Your task to perform on an android device: open app "Microsoft Outlook" (install if not already installed) Image 0: 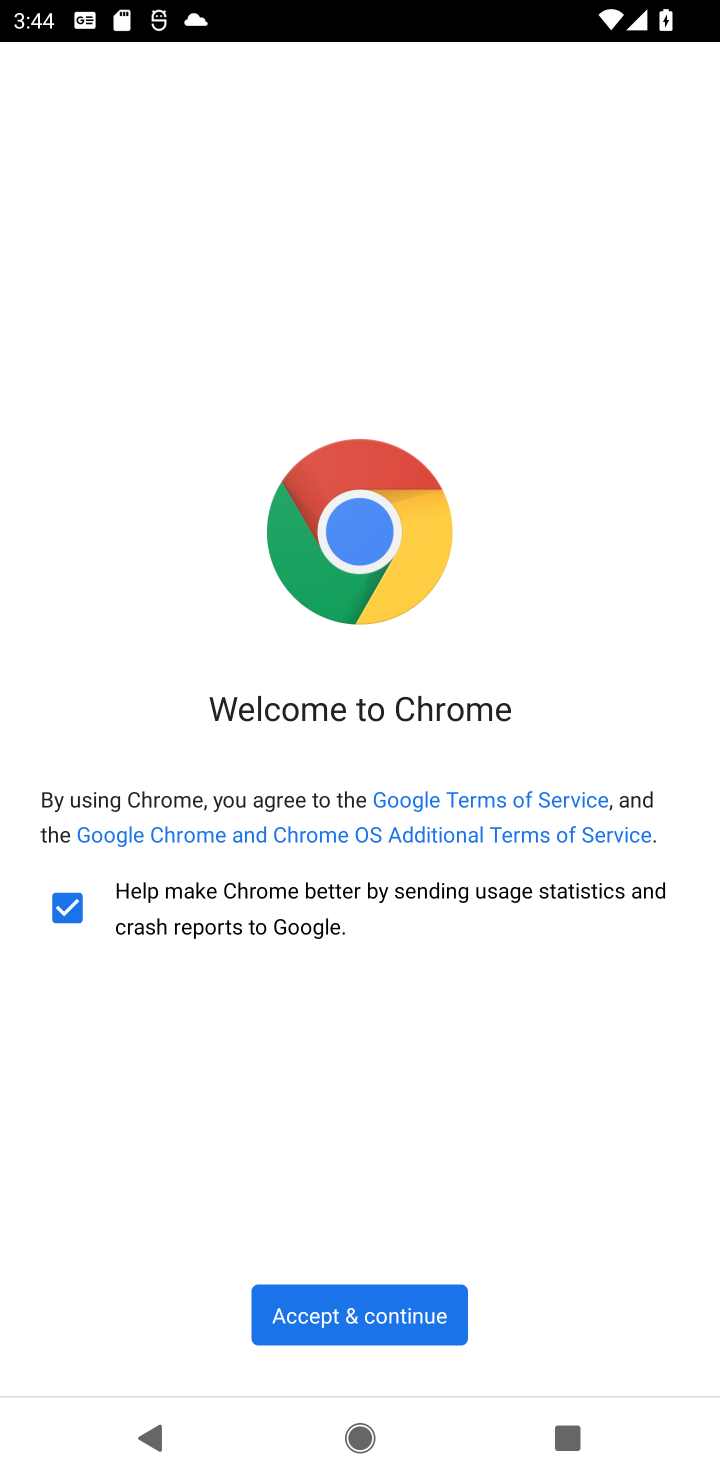
Step 0: press home button
Your task to perform on an android device: open app "Microsoft Outlook" (install if not already installed) Image 1: 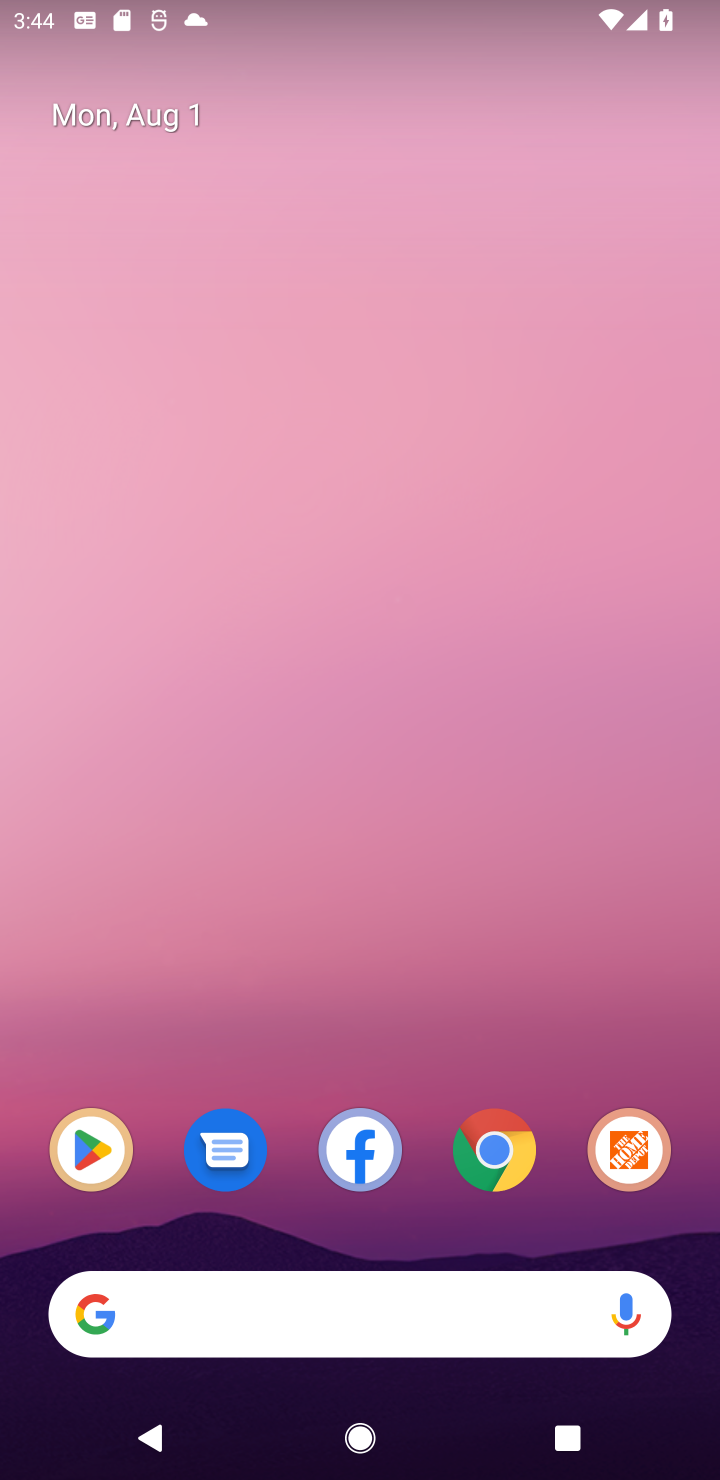
Step 1: drag from (276, 1212) to (393, 164)
Your task to perform on an android device: open app "Microsoft Outlook" (install if not already installed) Image 2: 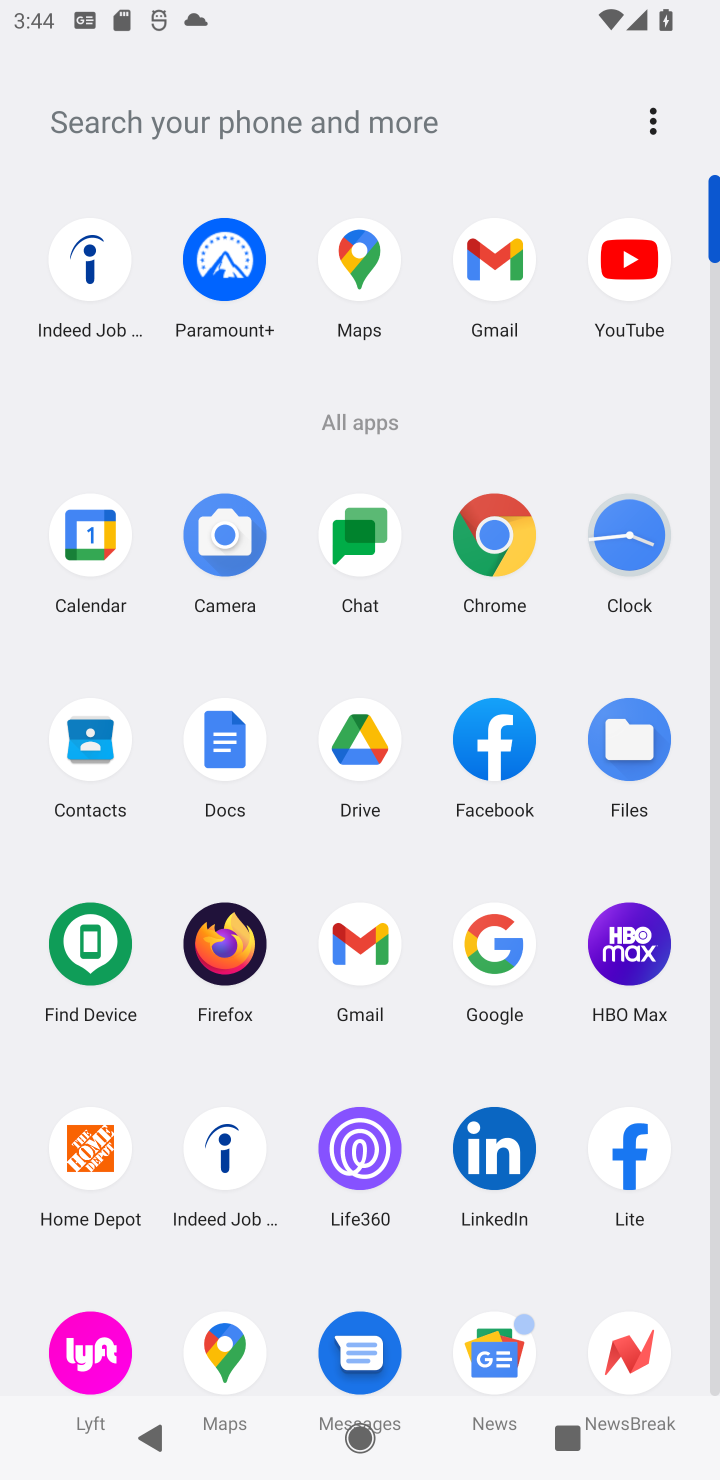
Step 2: press home button
Your task to perform on an android device: open app "Microsoft Outlook" (install if not already installed) Image 3: 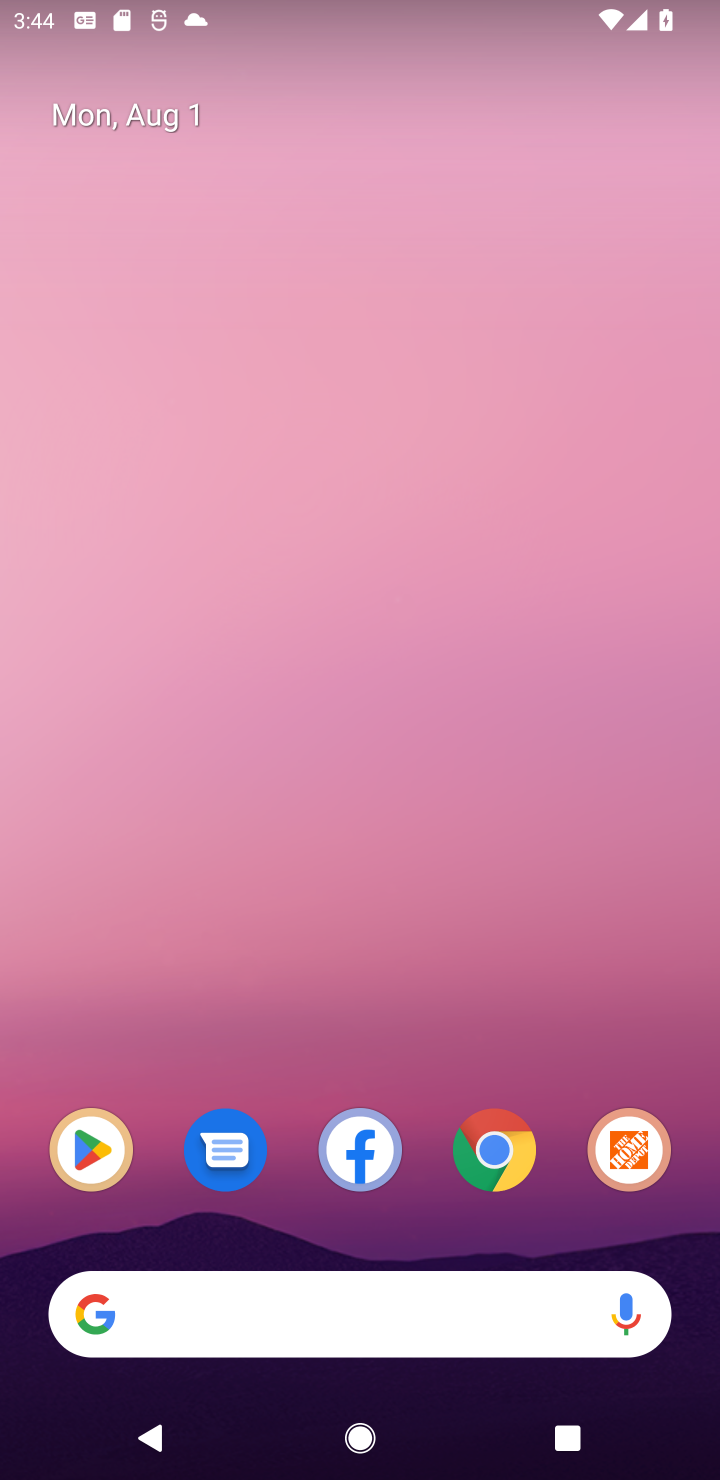
Step 3: click (114, 1168)
Your task to perform on an android device: open app "Microsoft Outlook" (install if not already installed) Image 4: 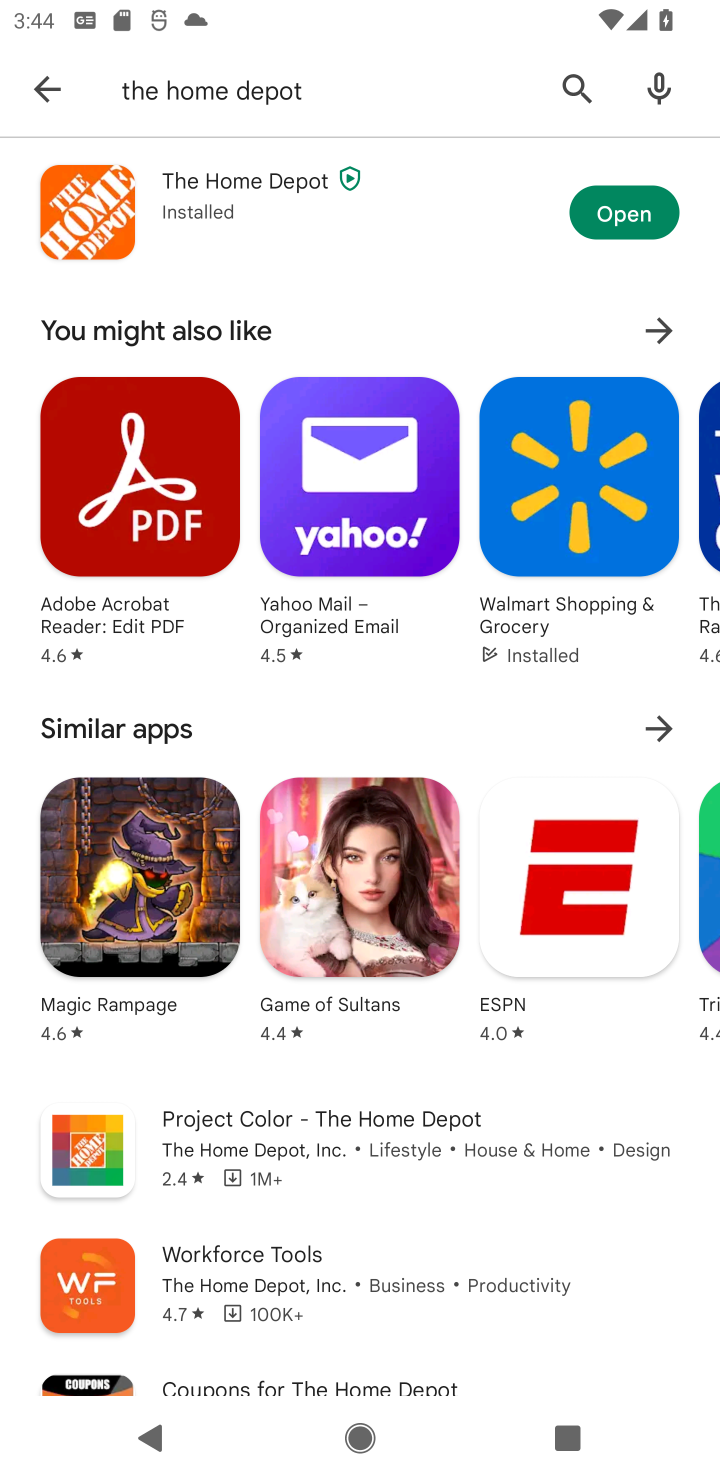
Step 4: click (585, 100)
Your task to perform on an android device: open app "Microsoft Outlook" (install if not already installed) Image 5: 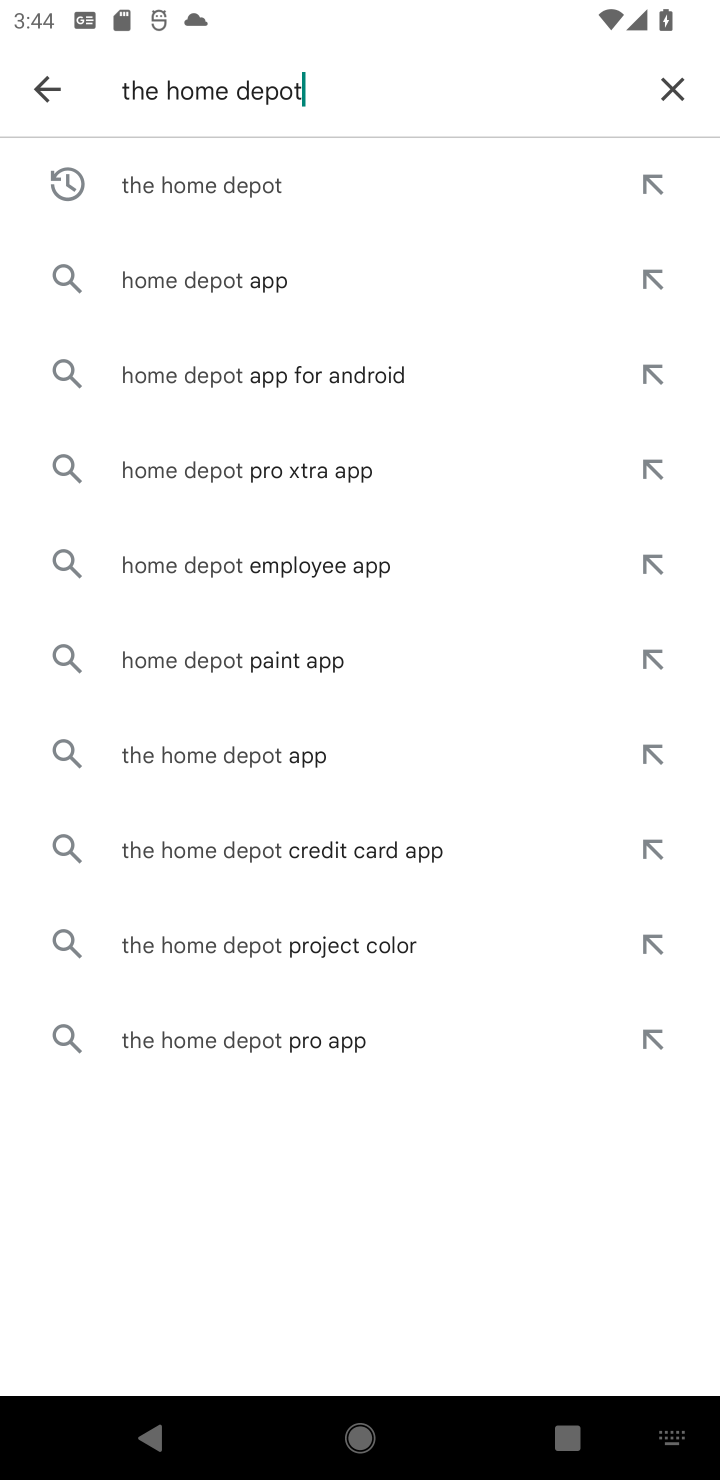
Step 5: click (681, 92)
Your task to perform on an android device: open app "Microsoft Outlook" (install if not already installed) Image 6: 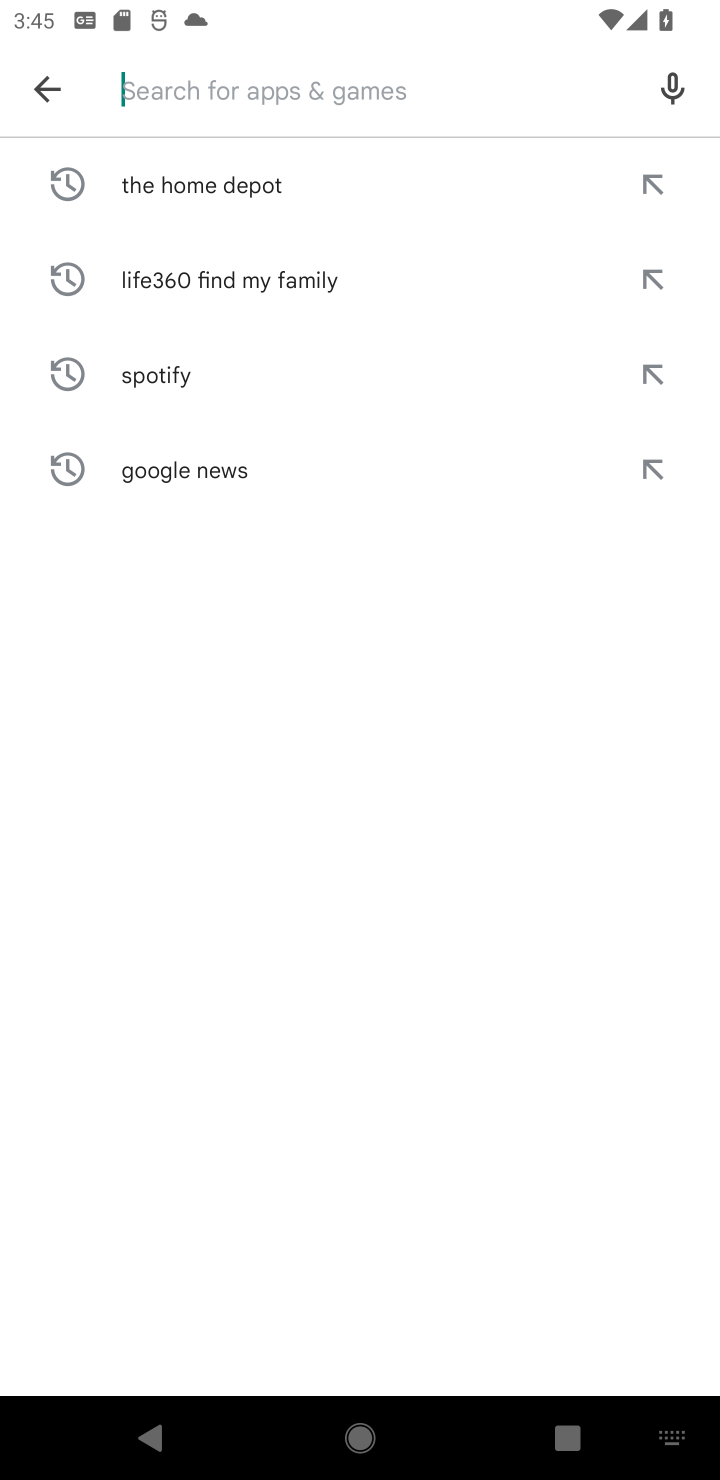
Step 6: type "microsoft outlook"
Your task to perform on an android device: open app "Microsoft Outlook" (install if not already installed) Image 7: 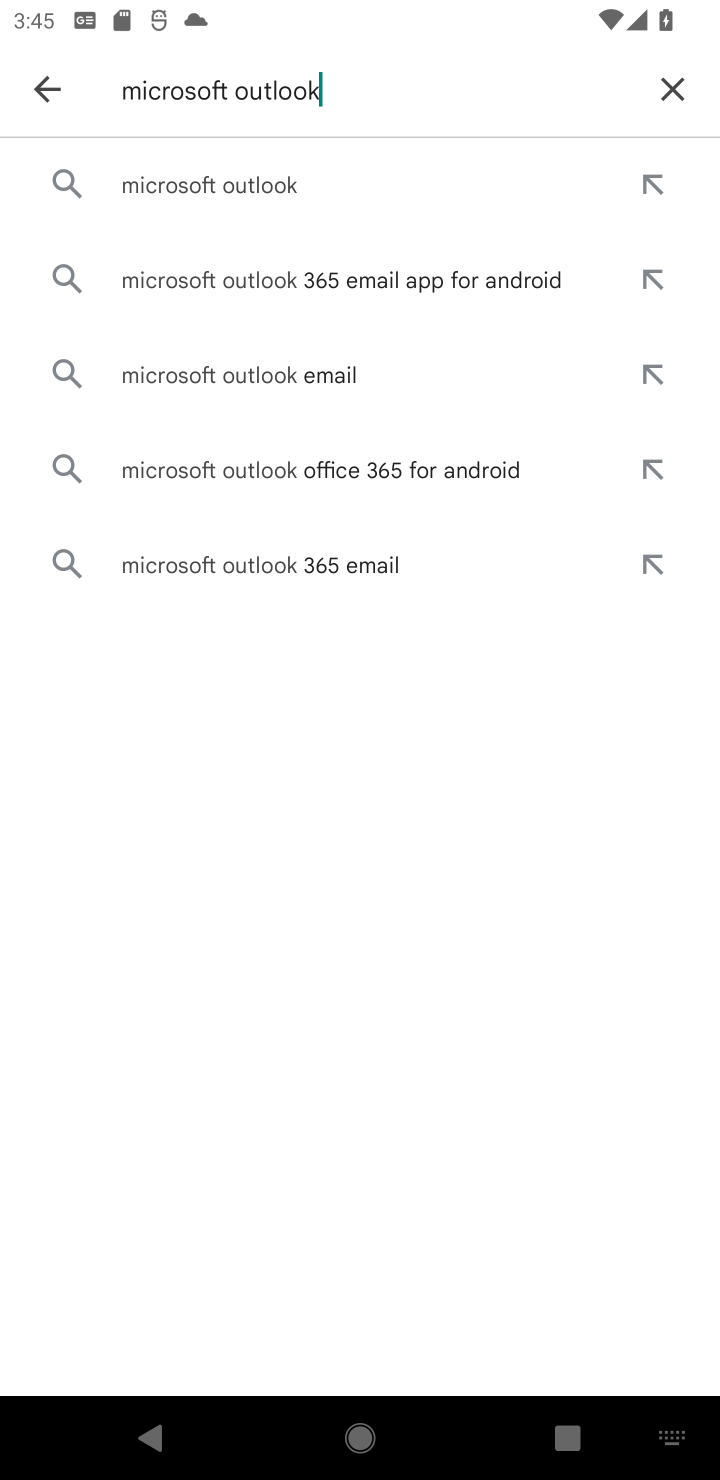
Step 7: click (360, 192)
Your task to perform on an android device: open app "Microsoft Outlook" (install if not already installed) Image 8: 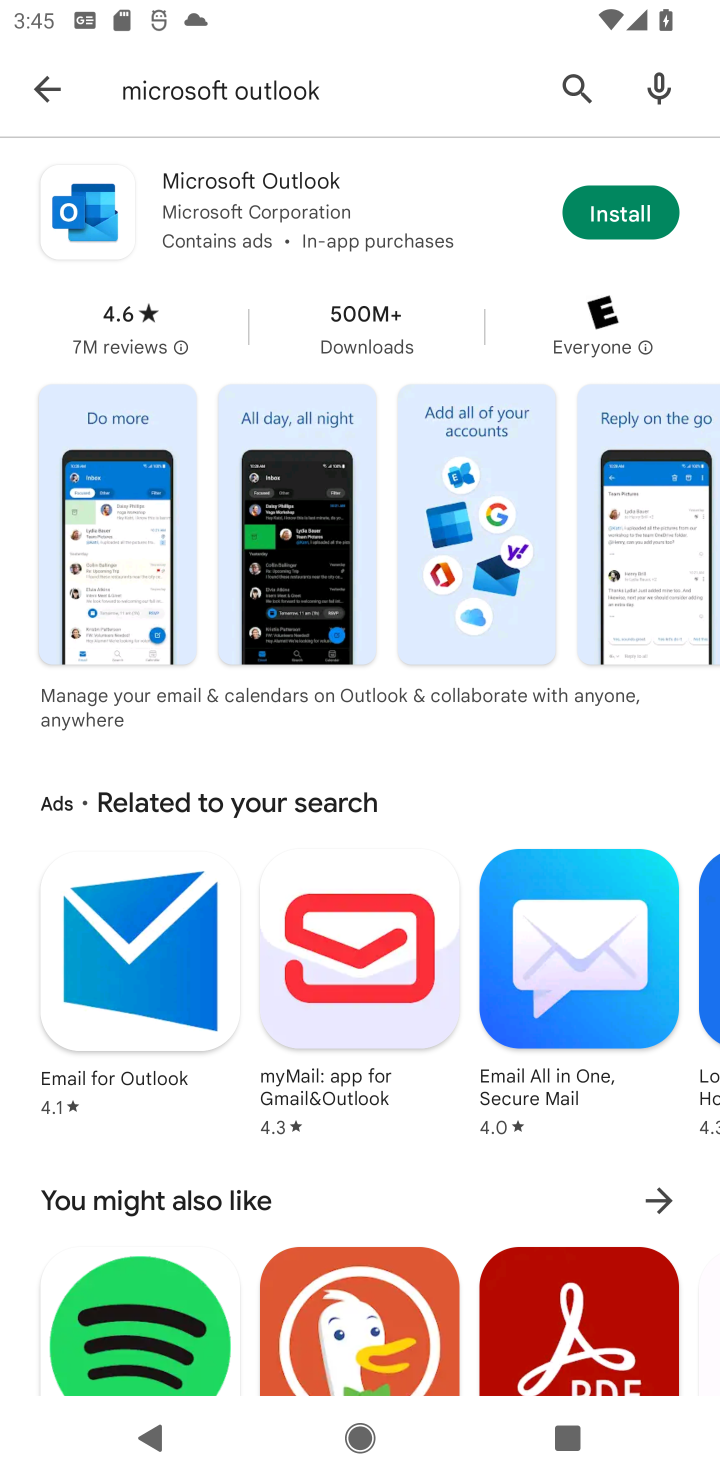
Step 8: click (628, 182)
Your task to perform on an android device: open app "Microsoft Outlook" (install if not already installed) Image 9: 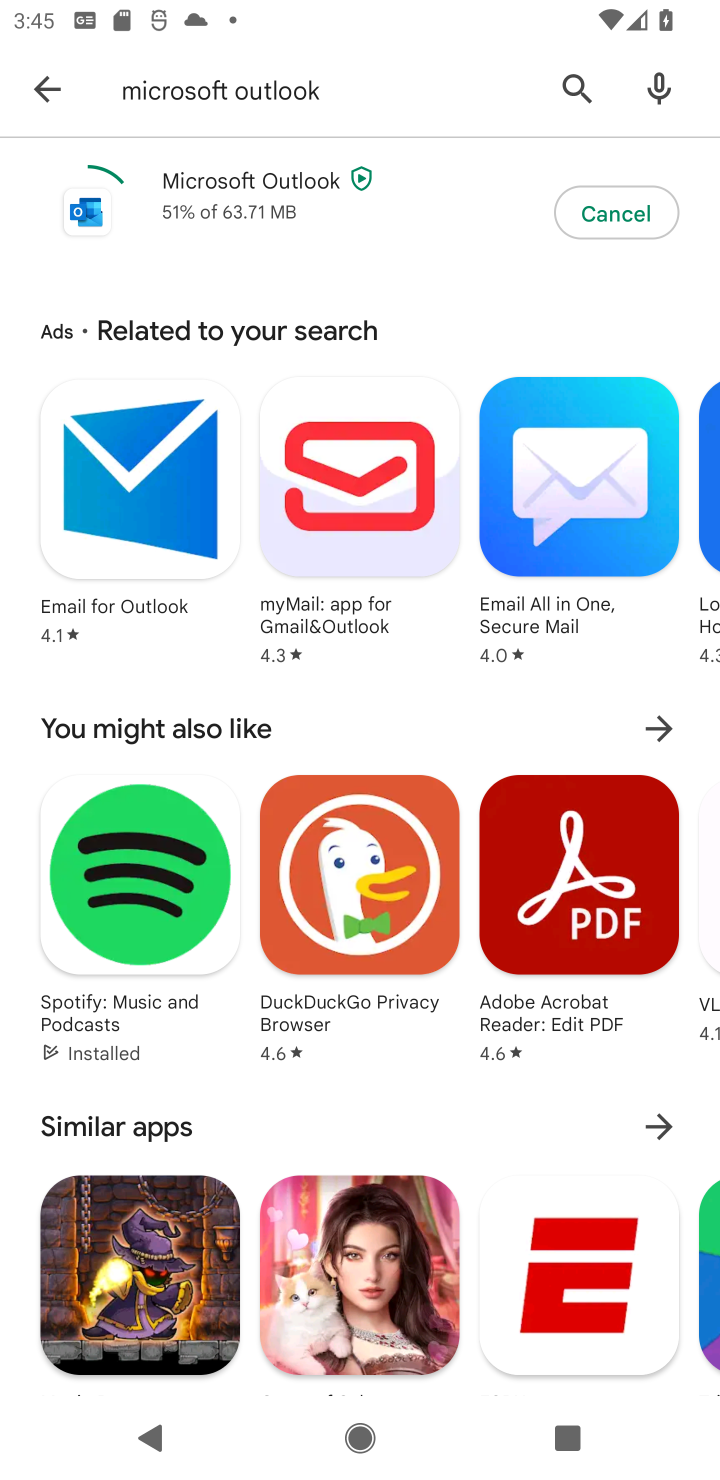
Step 9: task complete